Your task to perform on an android device: turn off airplane mode Image 0: 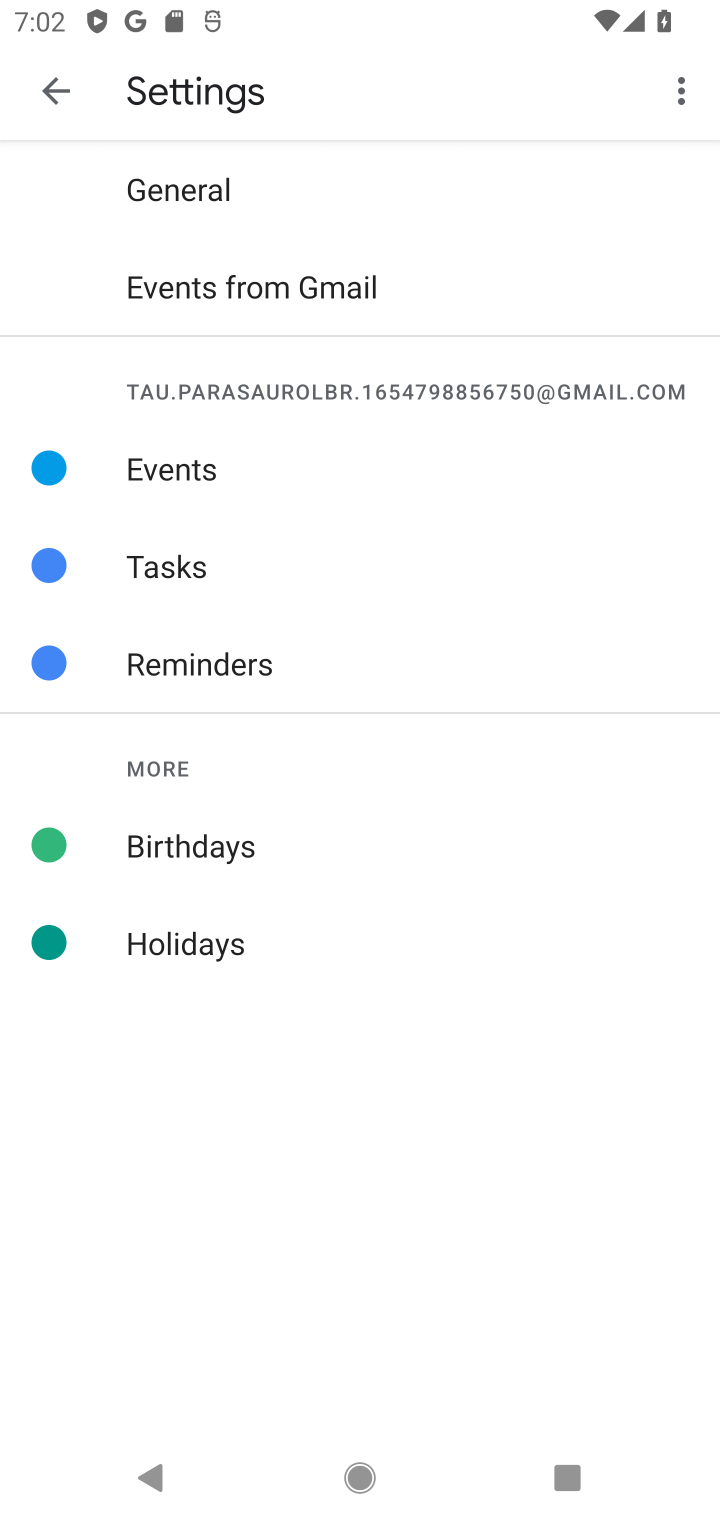
Step 0: press home button
Your task to perform on an android device: turn off airplane mode Image 1: 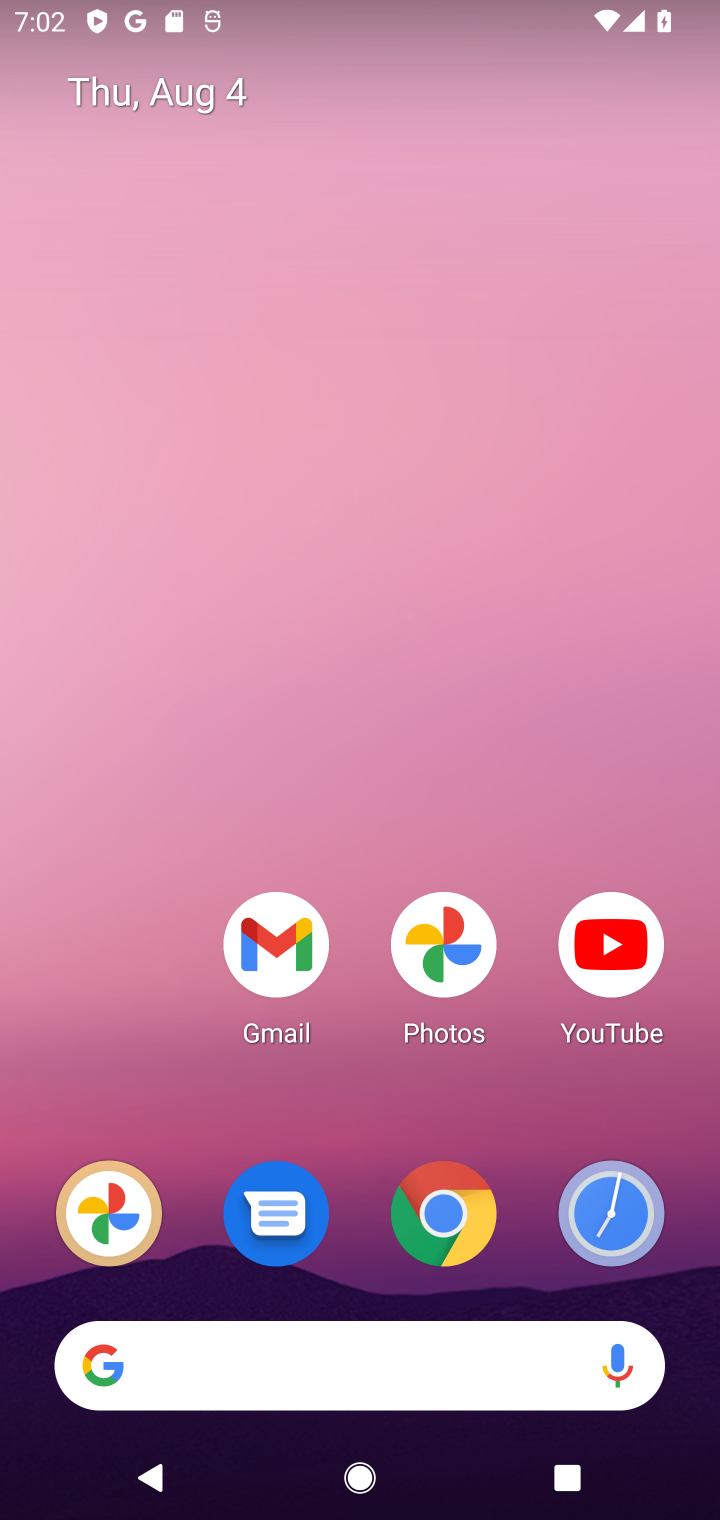
Step 1: drag from (364, 1090) to (316, 70)
Your task to perform on an android device: turn off airplane mode Image 2: 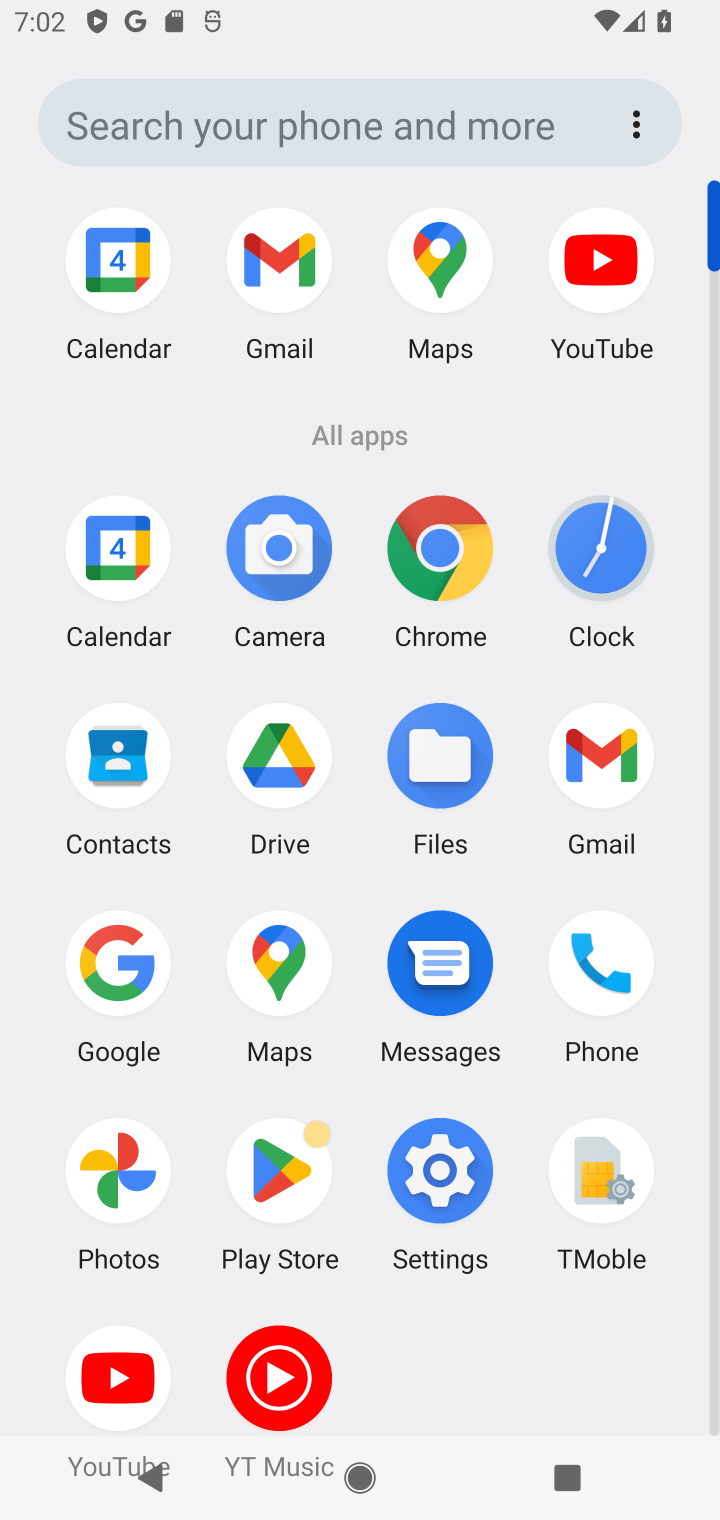
Step 2: click (430, 1168)
Your task to perform on an android device: turn off airplane mode Image 3: 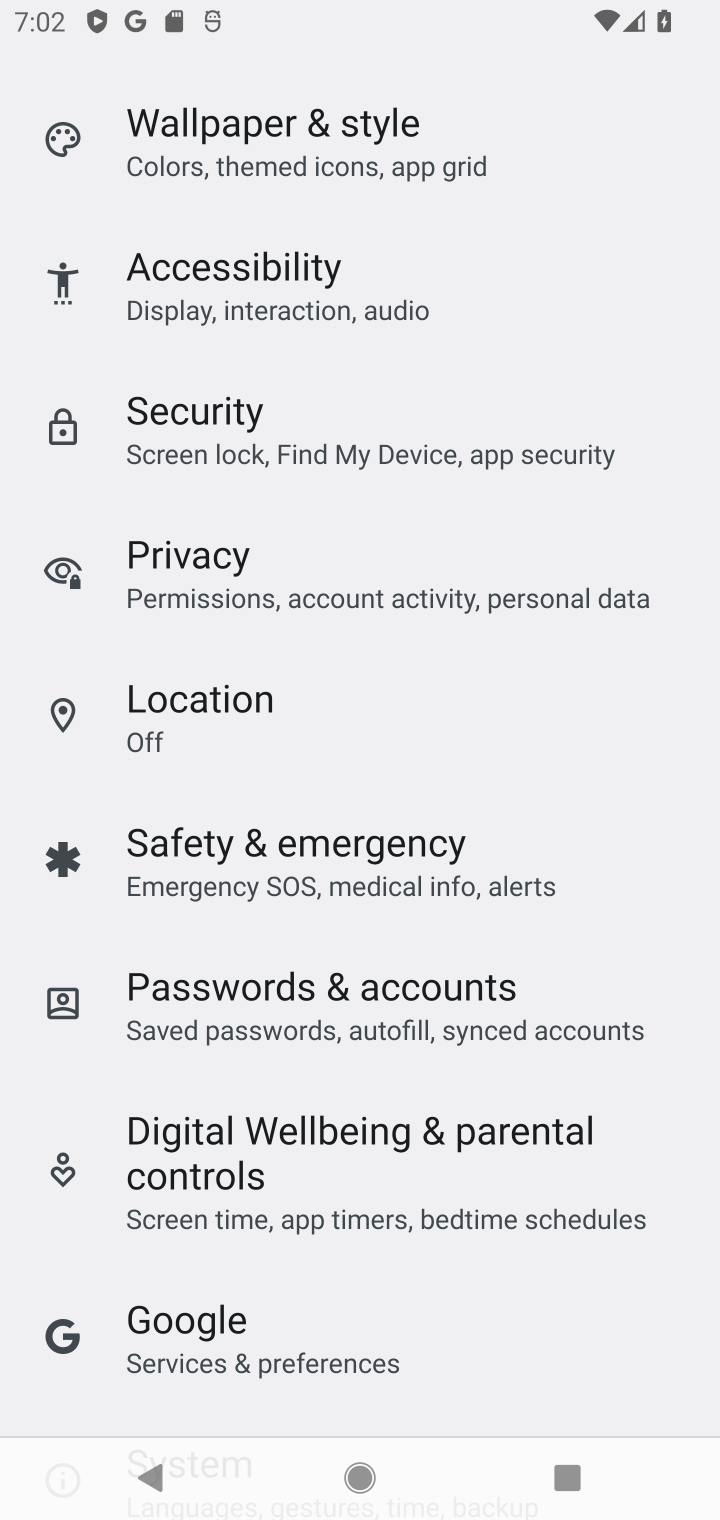
Step 3: drag from (456, 263) to (521, 841)
Your task to perform on an android device: turn off airplane mode Image 4: 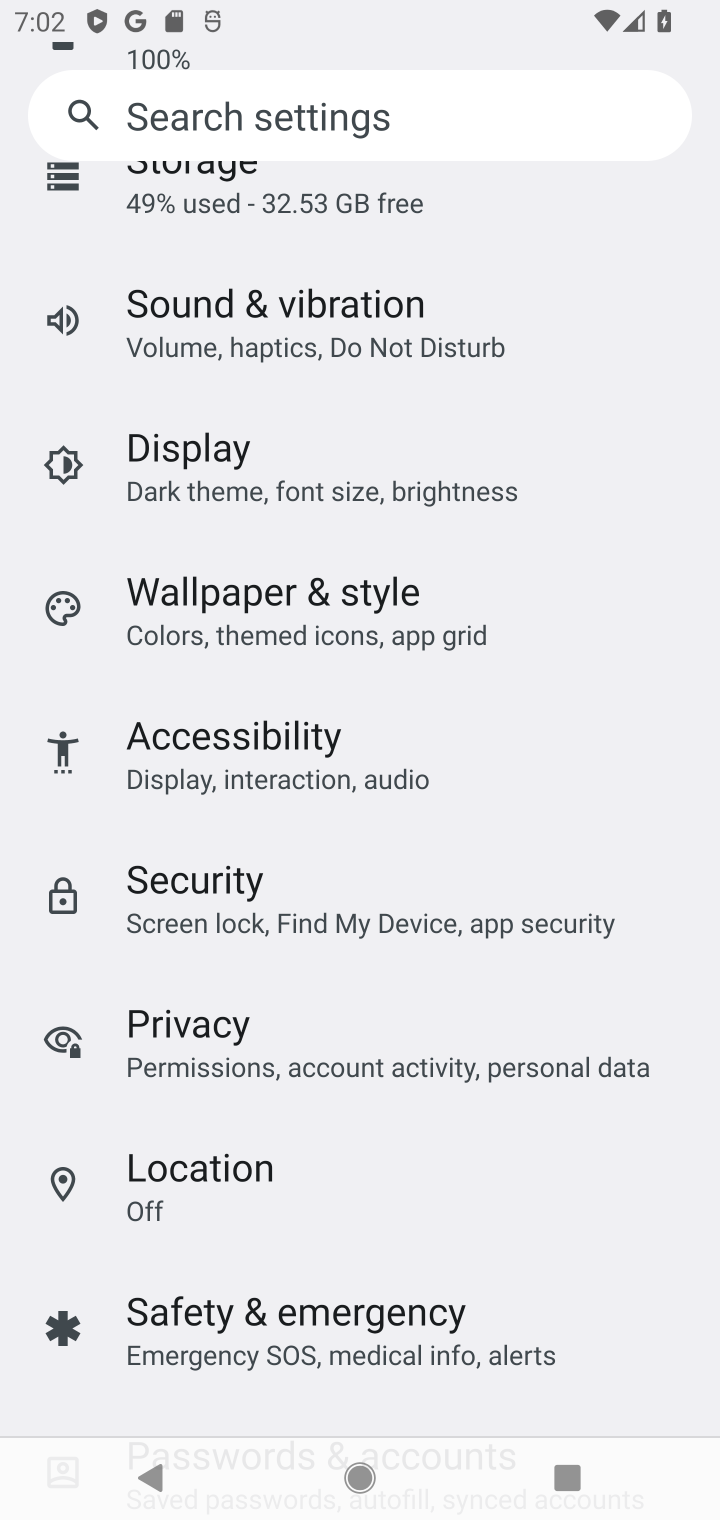
Step 4: drag from (565, 223) to (577, 1020)
Your task to perform on an android device: turn off airplane mode Image 5: 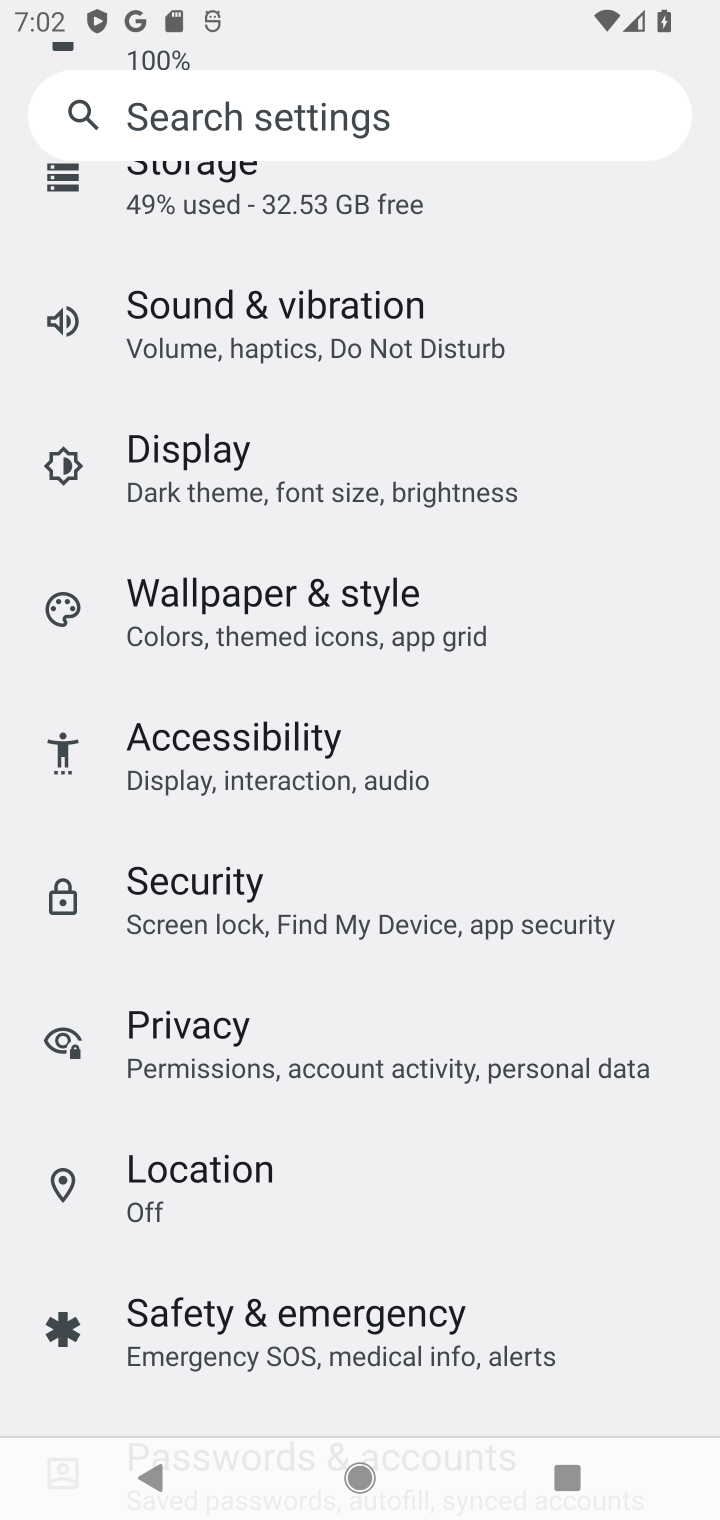
Step 5: drag from (548, 580) to (548, 1285)
Your task to perform on an android device: turn off airplane mode Image 6: 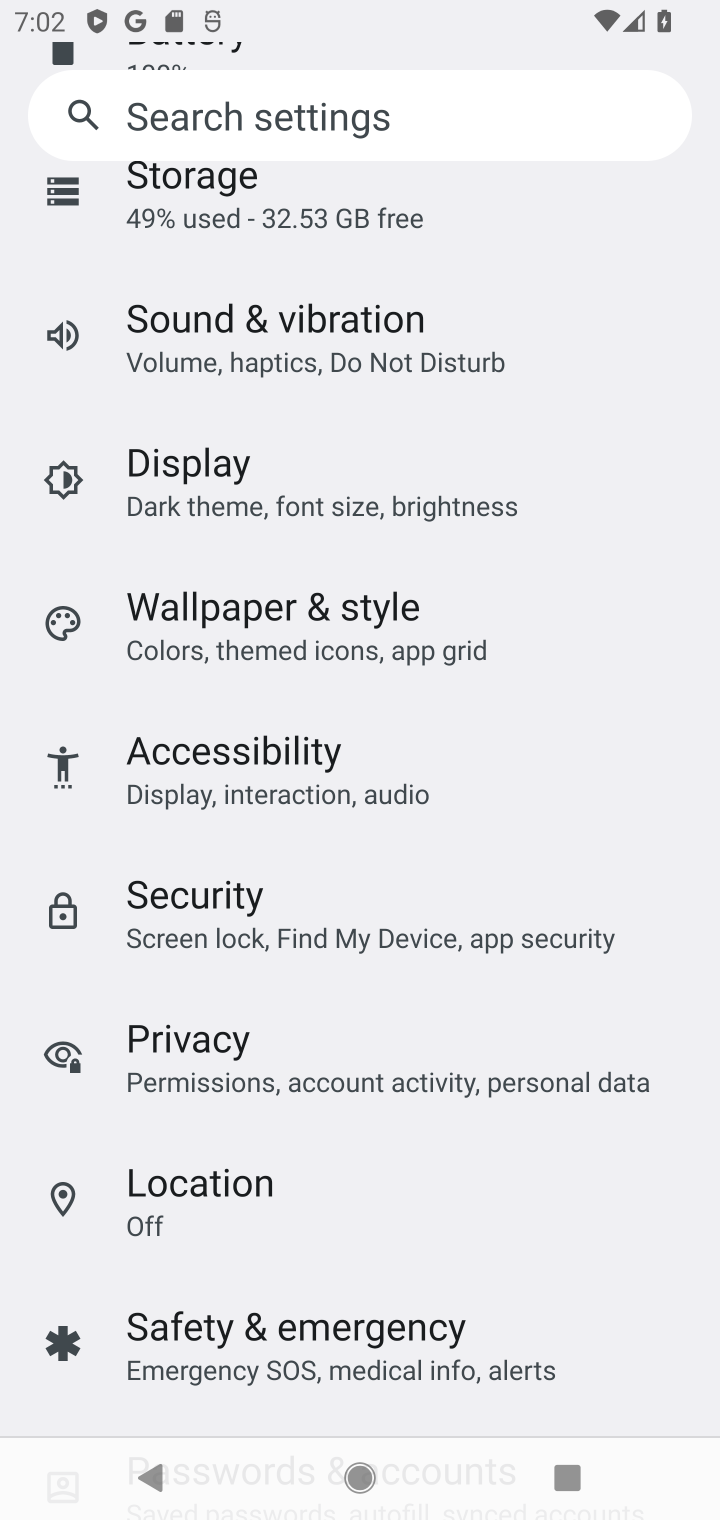
Step 6: drag from (489, 257) to (490, 916)
Your task to perform on an android device: turn off airplane mode Image 7: 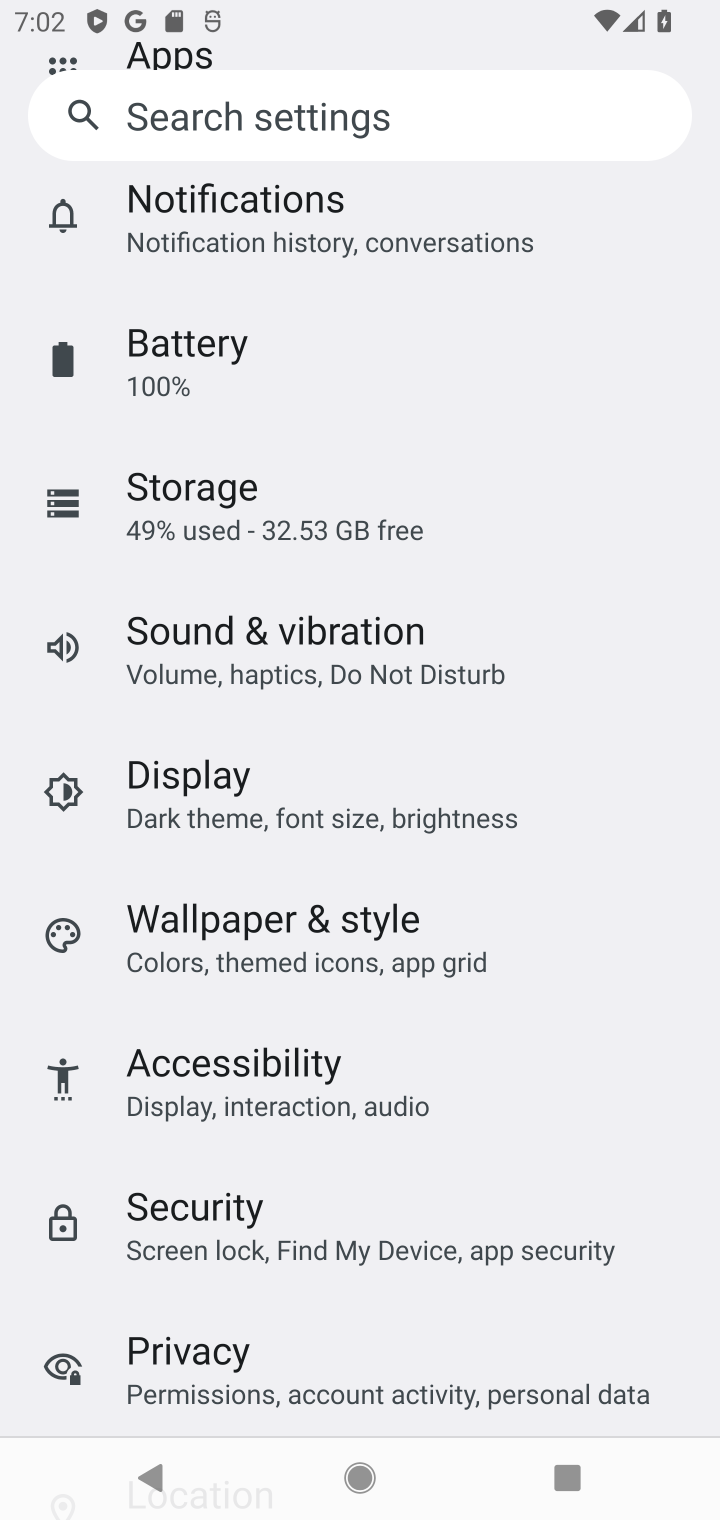
Step 7: drag from (571, 260) to (522, 1296)
Your task to perform on an android device: turn off airplane mode Image 8: 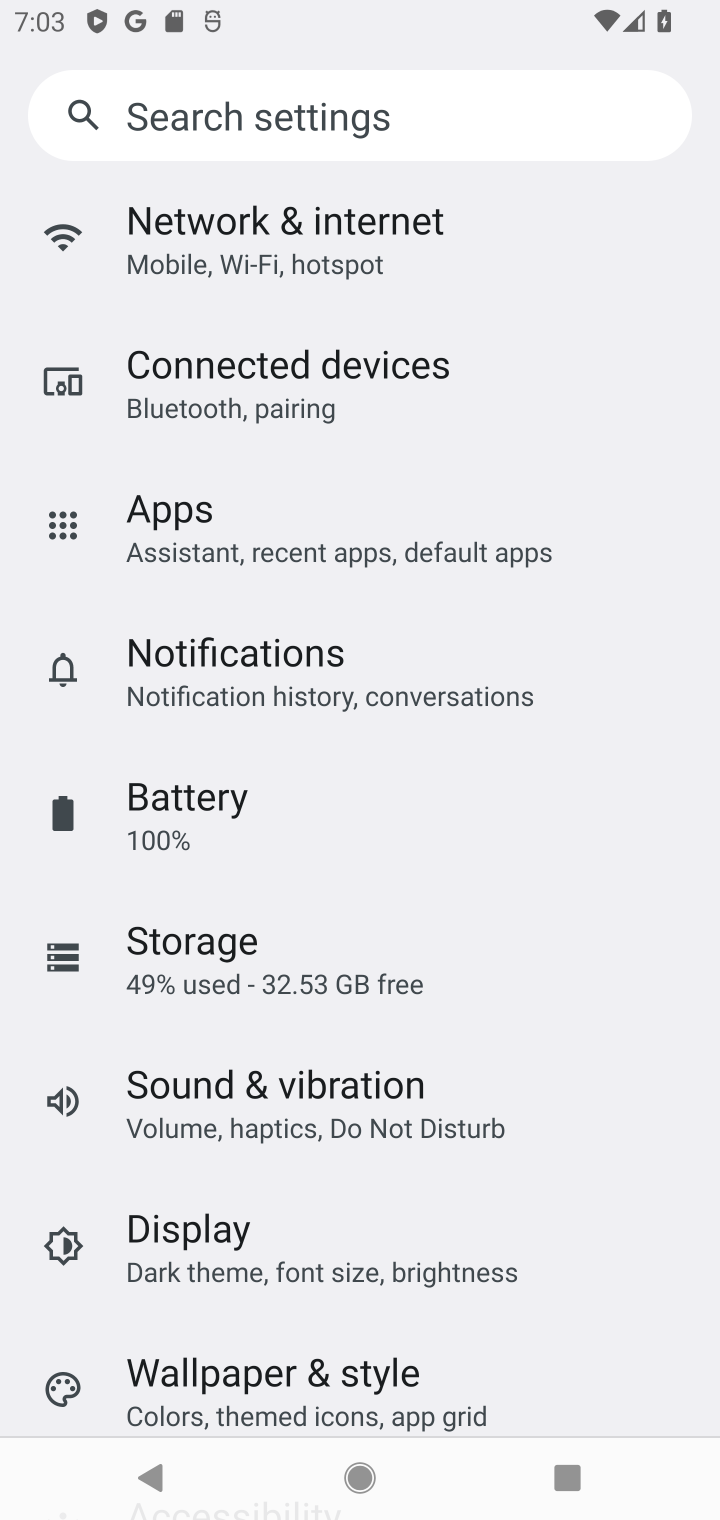
Step 8: click (359, 256)
Your task to perform on an android device: turn off airplane mode Image 9: 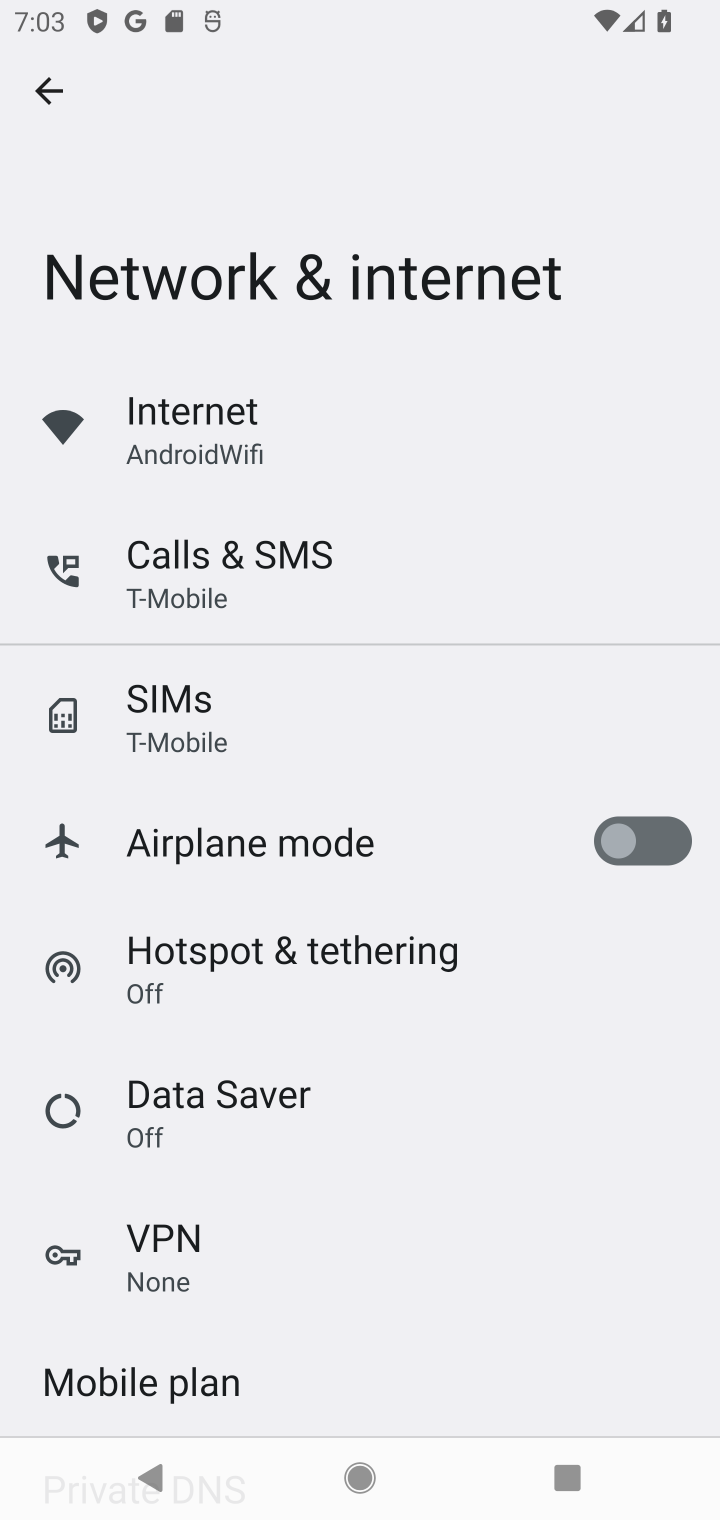
Step 9: task complete